Your task to perform on an android device: Open Yahoo.com Image 0: 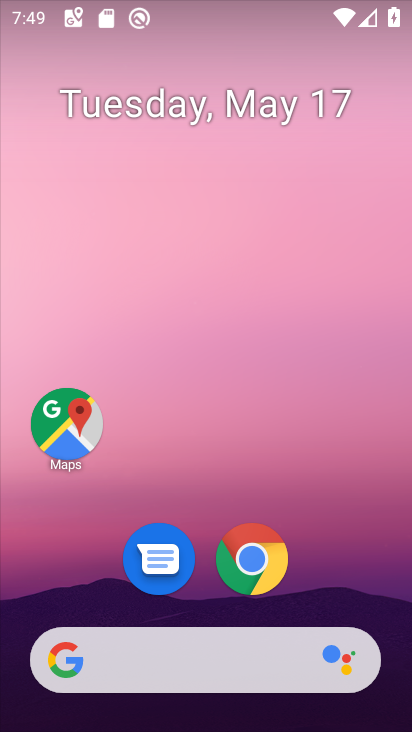
Step 0: drag from (184, 642) to (253, 161)
Your task to perform on an android device: Open Yahoo.com Image 1: 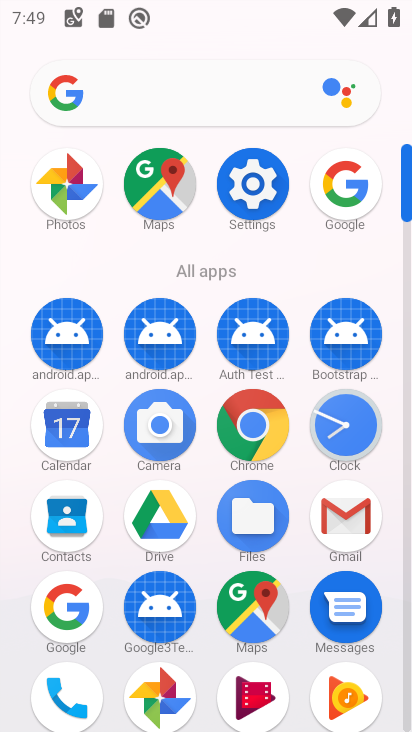
Step 1: click (248, 443)
Your task to perform on an android device: Open Yahoo.com Image 2: 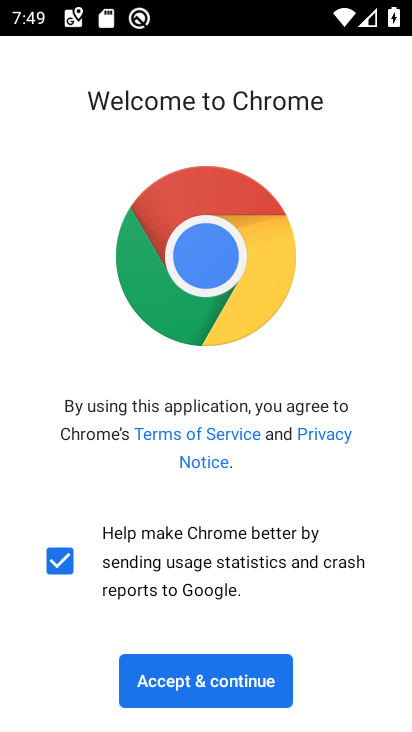
Step 2: click (226, 666)
Your task to perform on an android device: Open Yahoo.com Image 3: 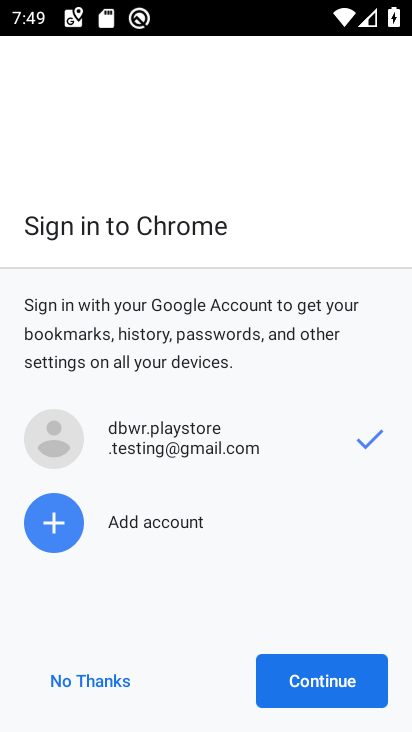
Step 3: click (307, 671)
Your task to perform on an android device: Open Yahoo.com Image 4: 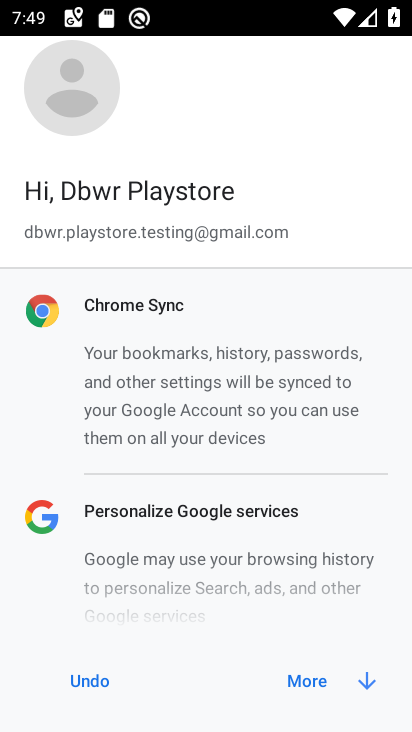
Step 4: click (307, 671)
Your task to perform on an android device: Open Yahoo.com Image 5: 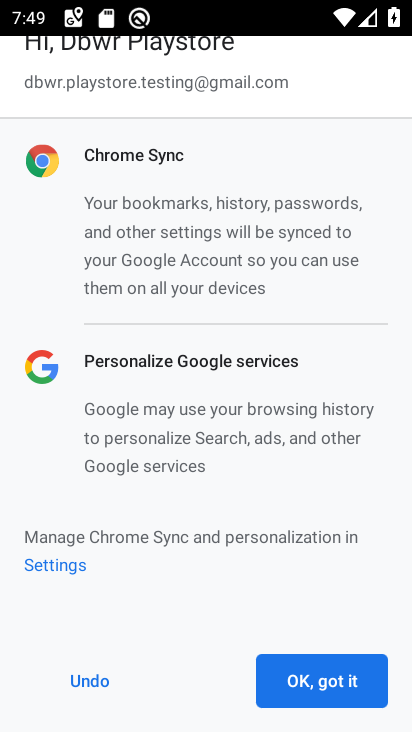
Step 5: click (328, 693)
Your task to perform on an android device: Open Yahoo.com Image 6: 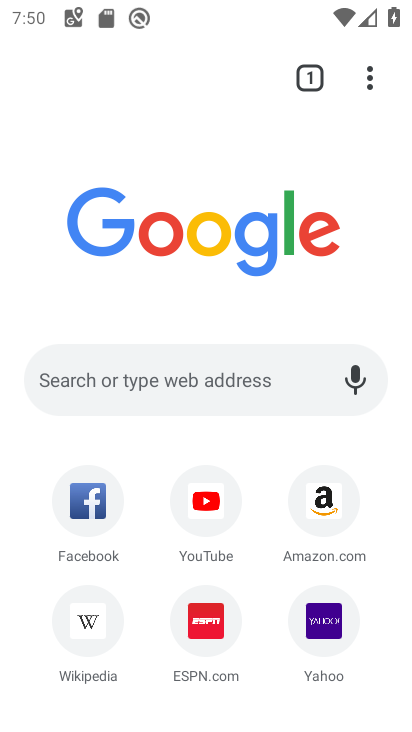
Step 6: click (324, 634)
Your task to perform on an android device: Open Yahoo.com Image 7: 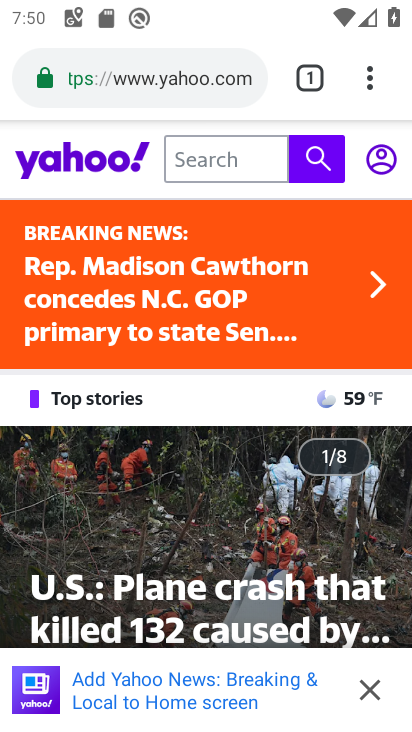
Step 7: task complete